Your task to perform on an android device: set default search engine in the chrome app Image 0: 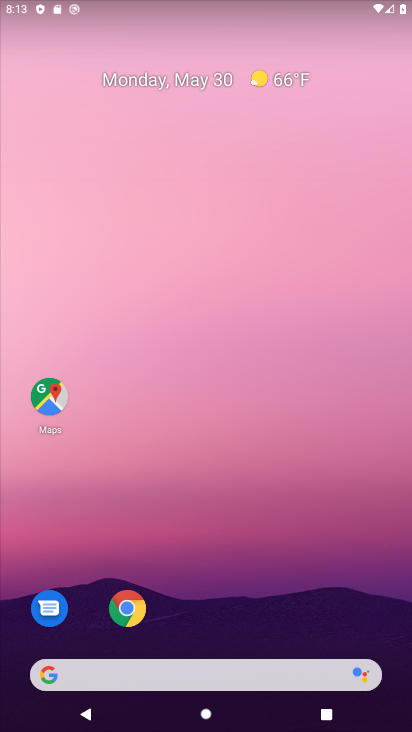
Step 0: click (125, 608)
Your task to perform on an android device: set default search engine in the chrome app Image 1: 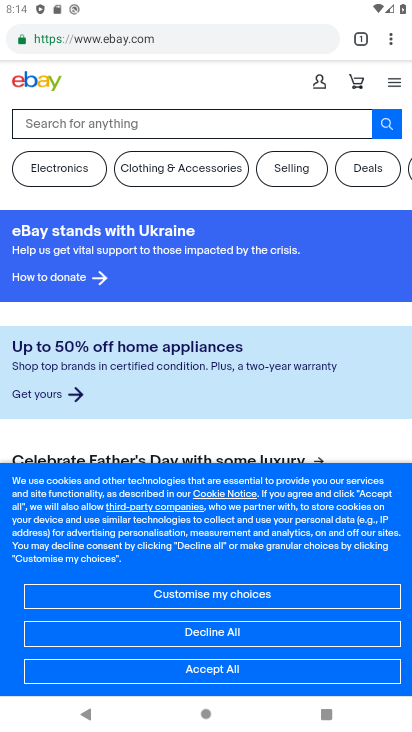
Step 1: click (389, 40)
Your task to perform on an android device: set default search engine in the chrome app Image 2: 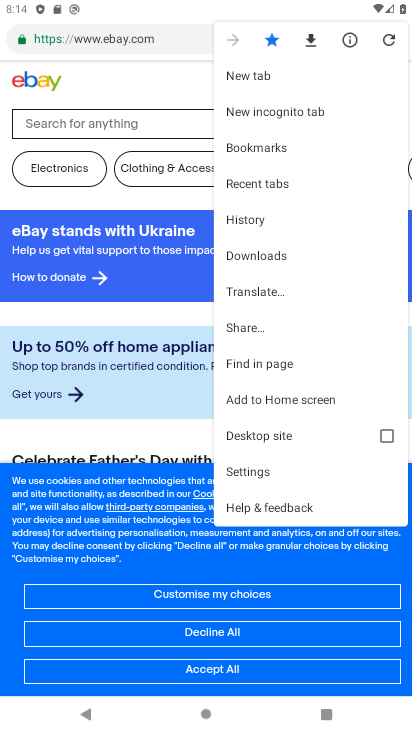
Step 2: click (242, 470)
Your task to perform on an android device: set default search engine in the chrome app Image 3: 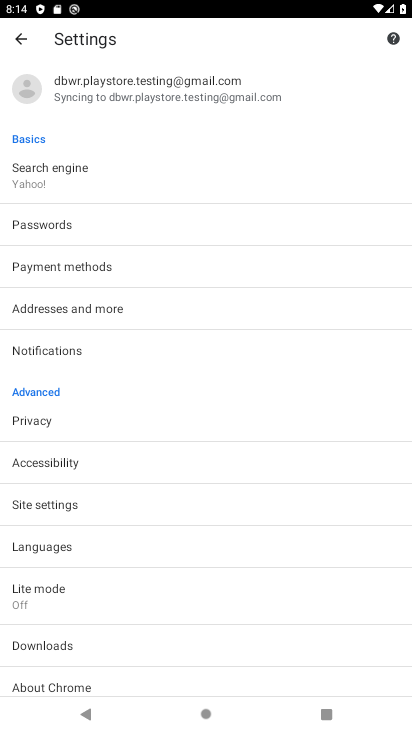
Step 3: click (54, 165)
Your task to perform on an android device: set default search engine in the chrome app Image 4: 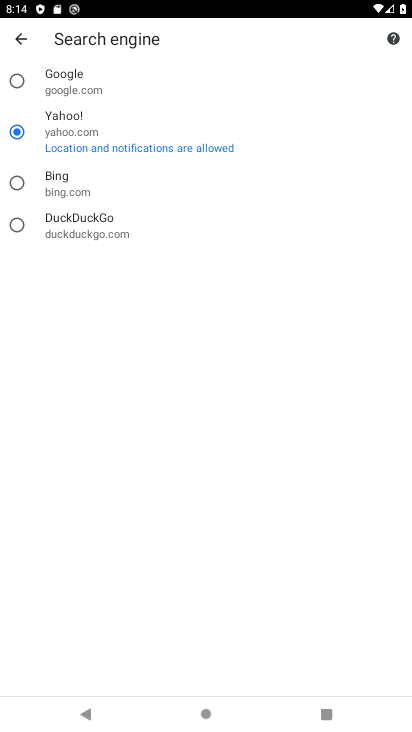
Step 4: click (11, 82)
Your task to perform on an android device: set default search engine in the chrome app Image 5: 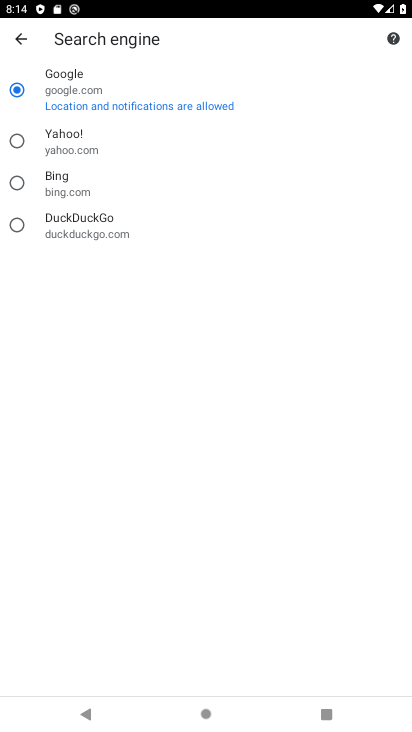
Step 5: task complete